Your task to perform on an android device: remove spam from my inbox in the gmail app Image 0: 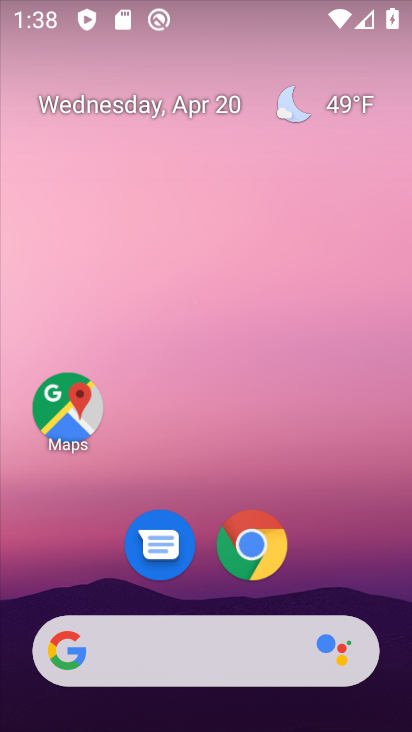
Step 0: drag from (206, 532) to (259, 4)
Your task to perform on an android device: remove spam from my inbox in the gmail app Image 1: 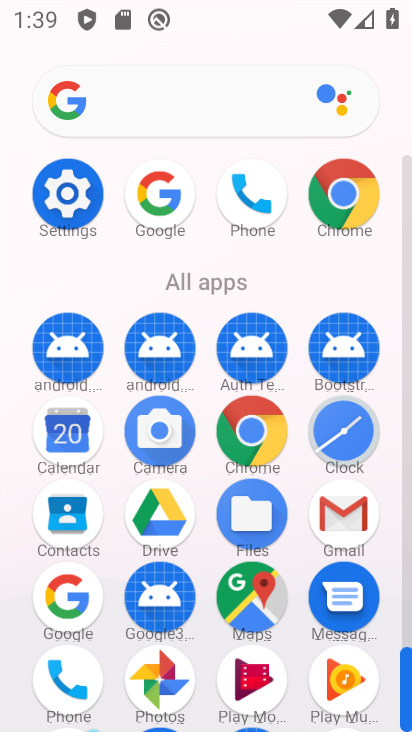
Step 1: click (342, 516)
Your task to perform on an android device: remove spam from my inbox in the gmail app Image 2: 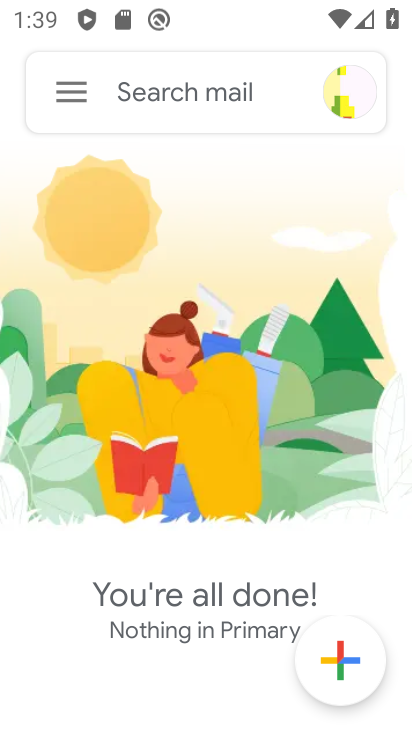
Step 2: click (77, 92)
Your task to perform on an android device: remove spam from my inbox in the gmail app Image 3: 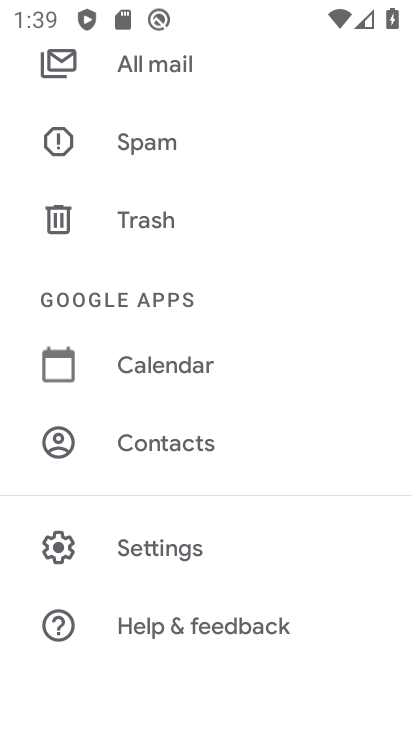
Step 3: click (172, 148)
Your task to perform on an android device: remove spam from my inbox in the gmail app Image 4: 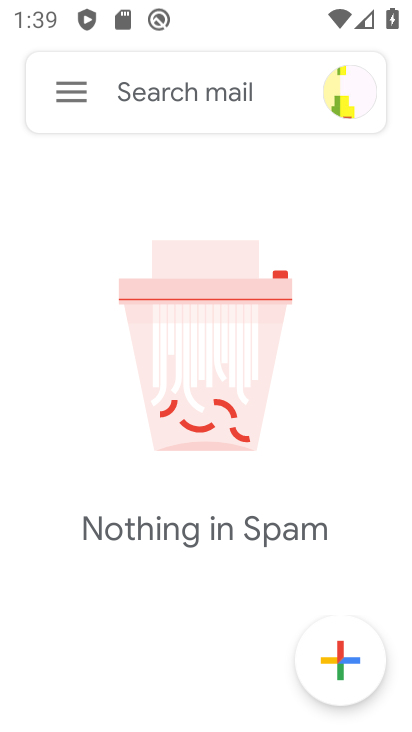
Step 4: task complete